Your task to perform on an android device: Clear all items from cart on costco. Add razer blackwidow to the cart on costco, then select checkout. Image 0: 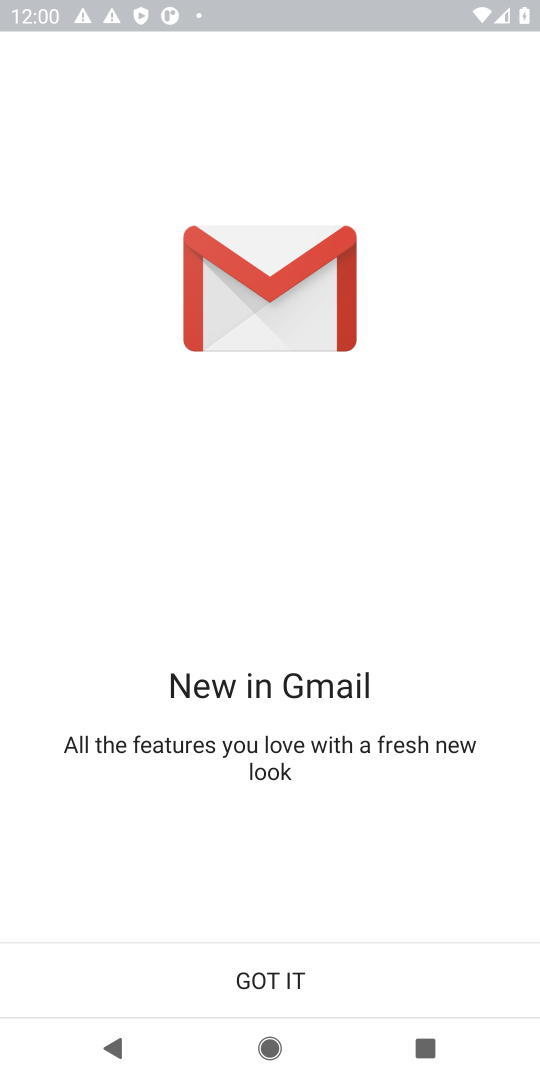
Step 0: press home button
Your task to perform on an android device: Clear all items from cart on costco. Add razer blackwidow to the cart on costco, then select checkout. Image 1: 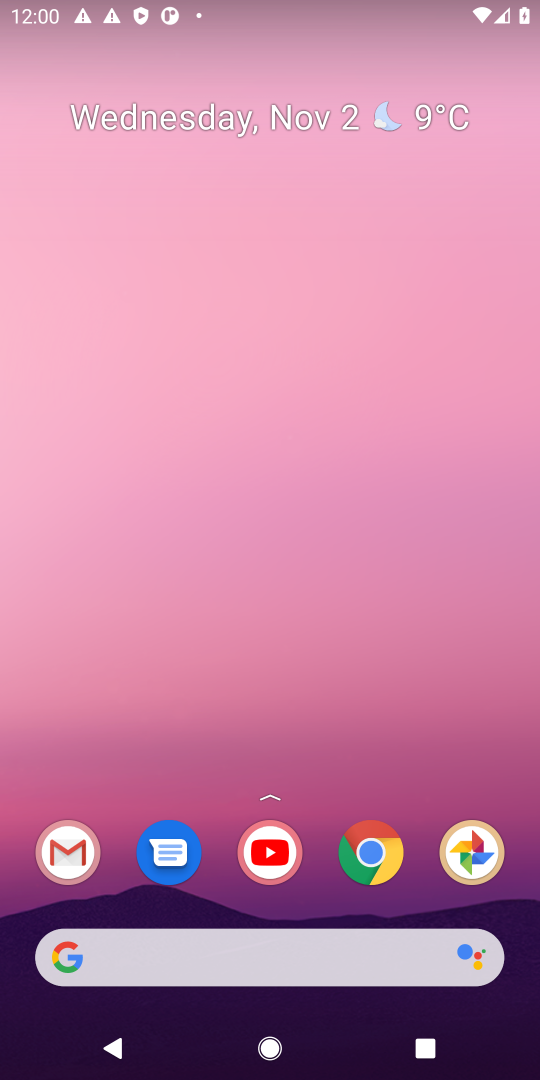
Step 1: drag from (268, 894) to (279, 169)
Your task to perform on an android device: Clear all items from cart on costco. Add razer blackwidow to the cart on costco, then select checkout. Image 2: 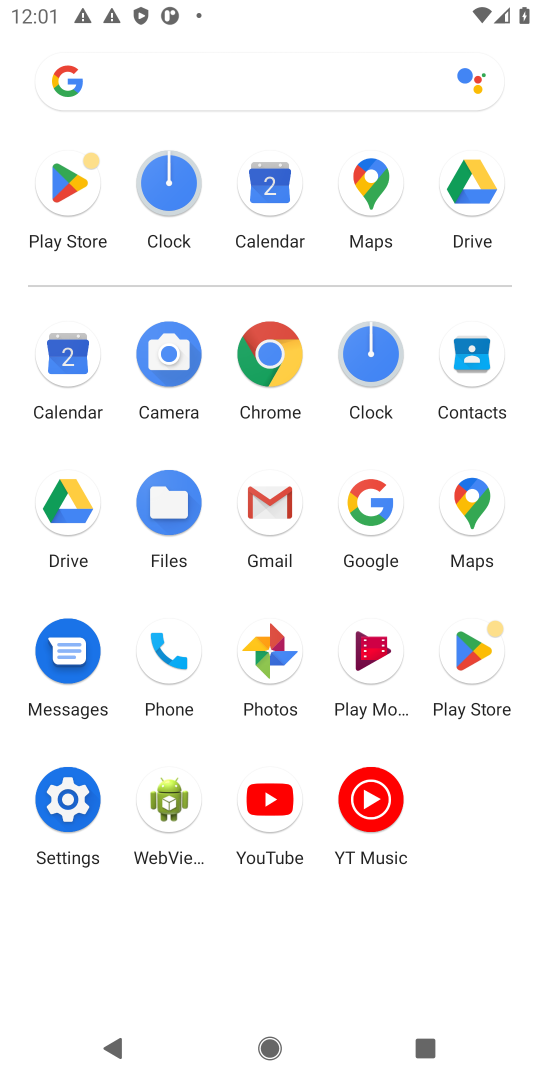
Step 2: click (364, 551)
Your task to perform on an android device: Clear all items from cart on costco. Add razer blackwidow to the cart on costco, then select checkout. Image 3: 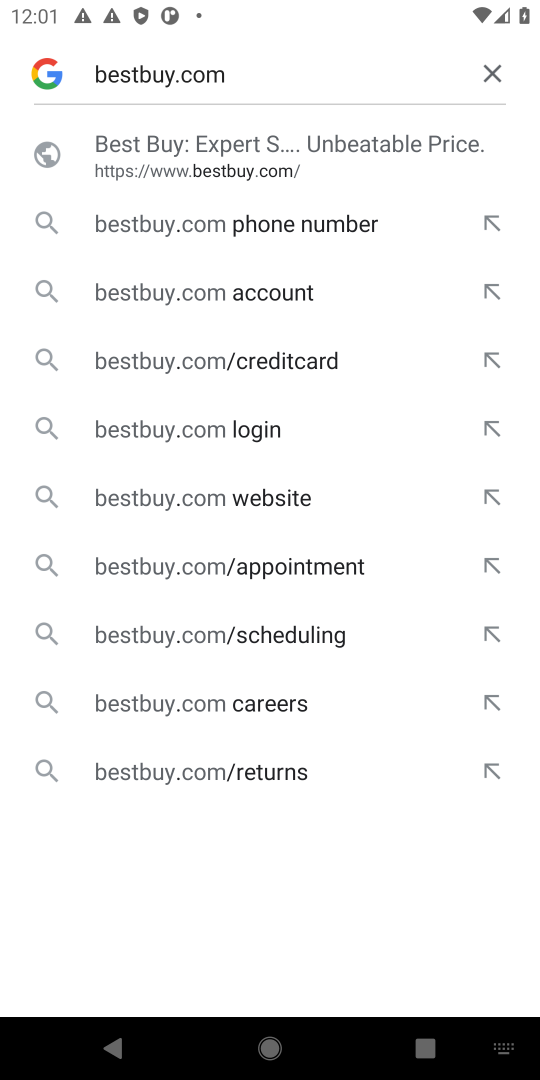
Step 3: click (295, 147)
Your task to perform on an android device: Clear all items from cart on costco. Add razer blackwidow to the cart on costco, then select checkout. Image 4: 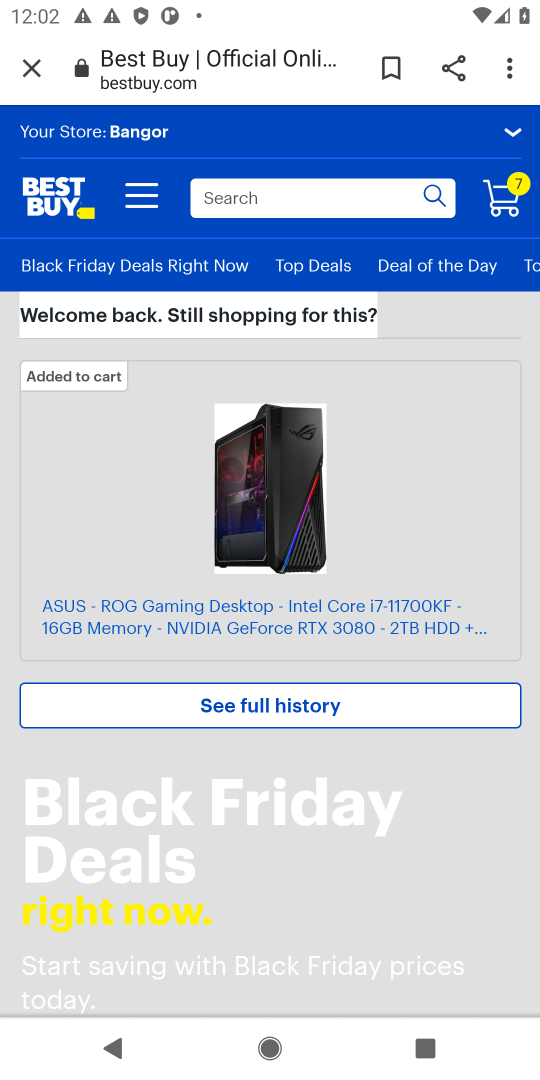
Step 4: click (35, 72)
Your task to perform on an android device: Clear all items from cart on costco. Add razer blackwidow to the cart on costco, then select checkout. Image 5: 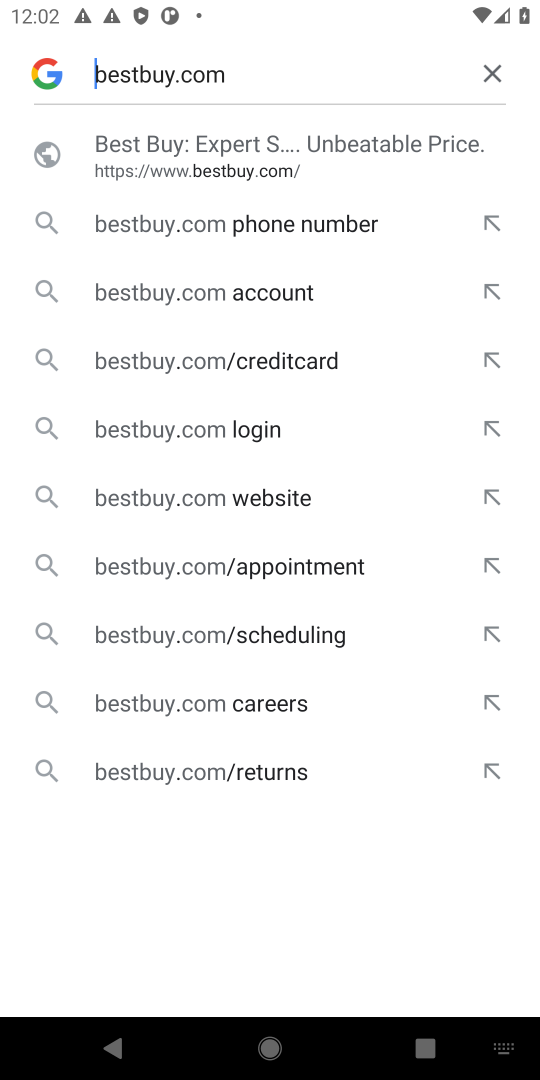
Step 5: click (496, 69)
Your task to perform on an android device: Clear all items from cart on costco. Add razer blackwidow to the cart on costco, then select checkout. Image 6: 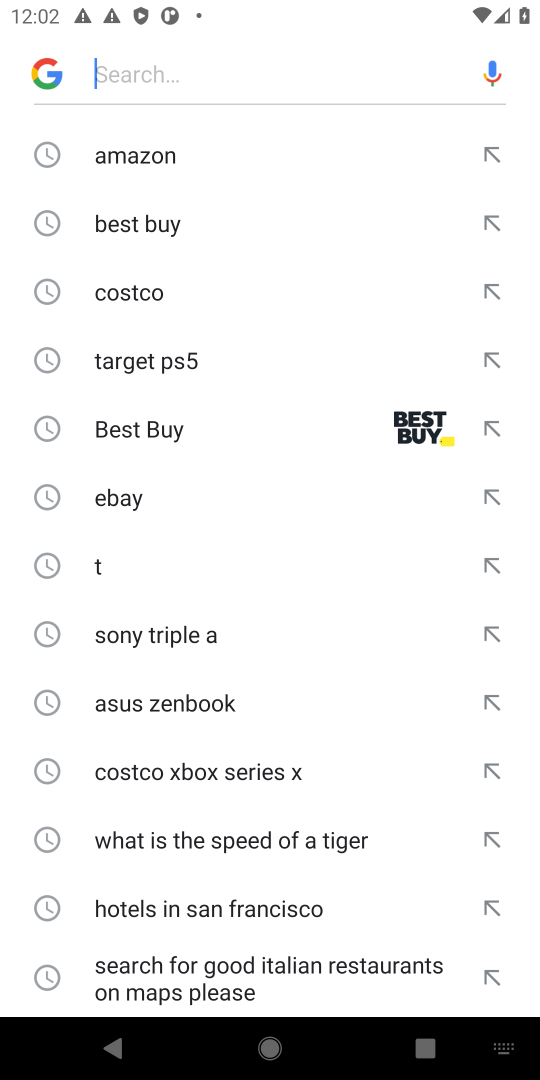
Step 6: type "costco"
Your task to perform on an android device: Clear all items from cart on costco. Add razer blackwidow to the cart on costco, then select checkout. Image 7: 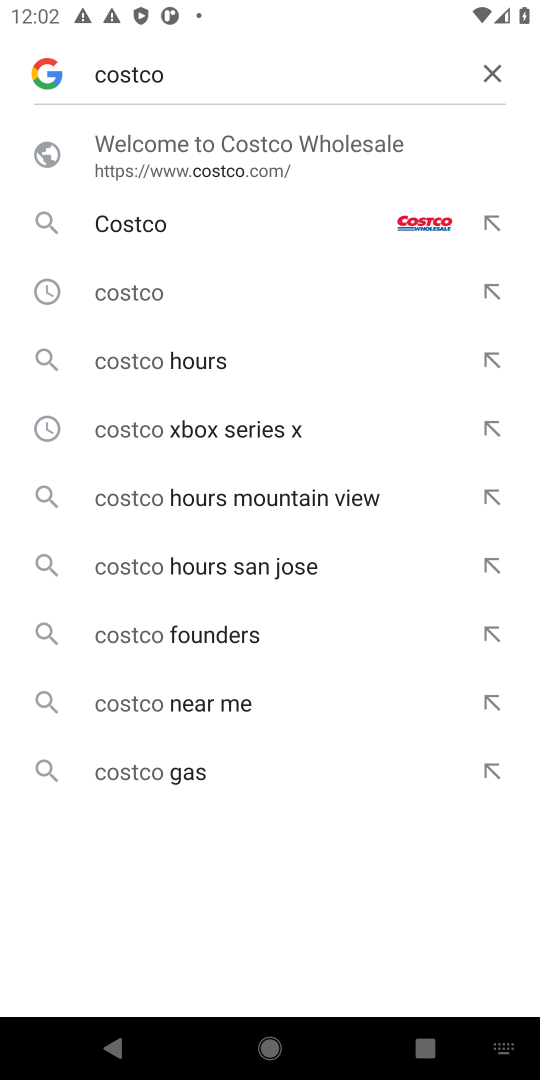
Step 7: click (280, 168)
Your task to perform on an android device: Clear all items from cart on costco. Add razer blackwidow to the cart on costco, then select checkout. Image 8: 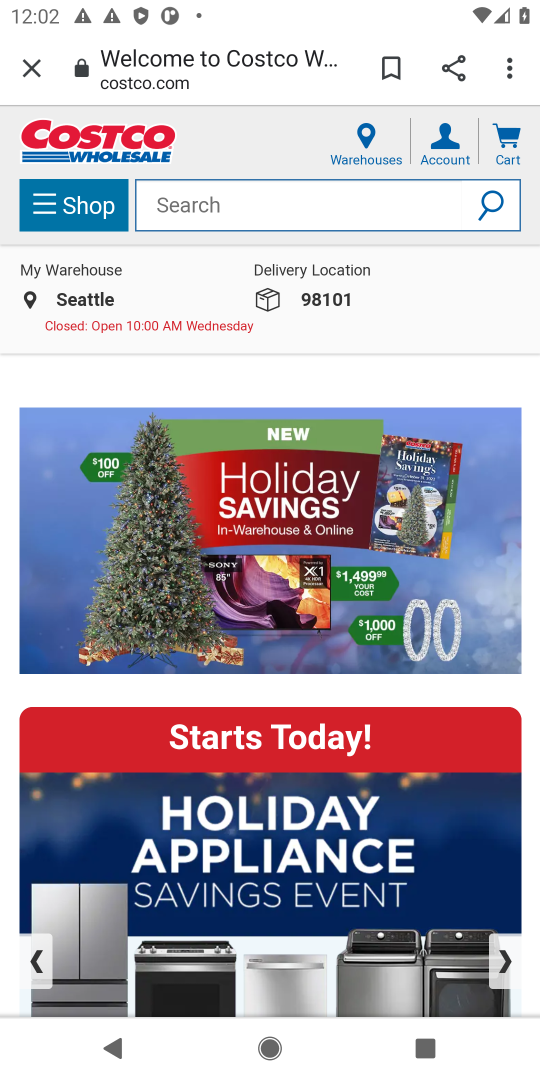
Step 8: click (510, 143)
Your task to perform on an android device: Clear all items from cart on costco. Add razer blackwidow to the cart on costco, then select checkout. Image 9: 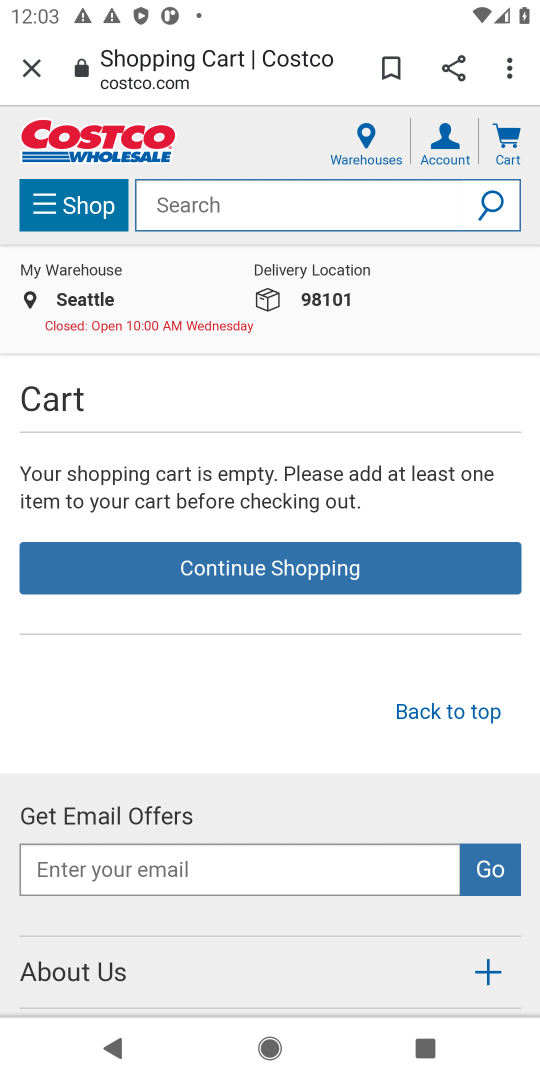
Step 9: click (410, 195)
Your task to perform on an android device: Clear all items from cart on costco. Add razer blackwidow to the cart on costco, then select checkout. Image 10: 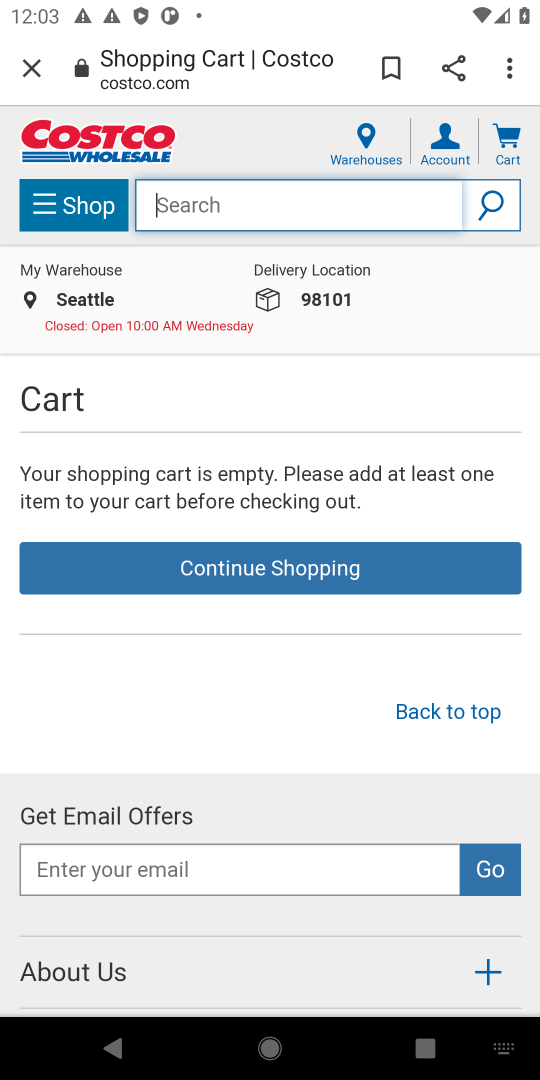
Step 10: type "razer blackwidow"
Your task to perform on an android device: Clear all items from cart on costco. Add razer blackwidow to the cart on costco, then select checkout. Image 11: 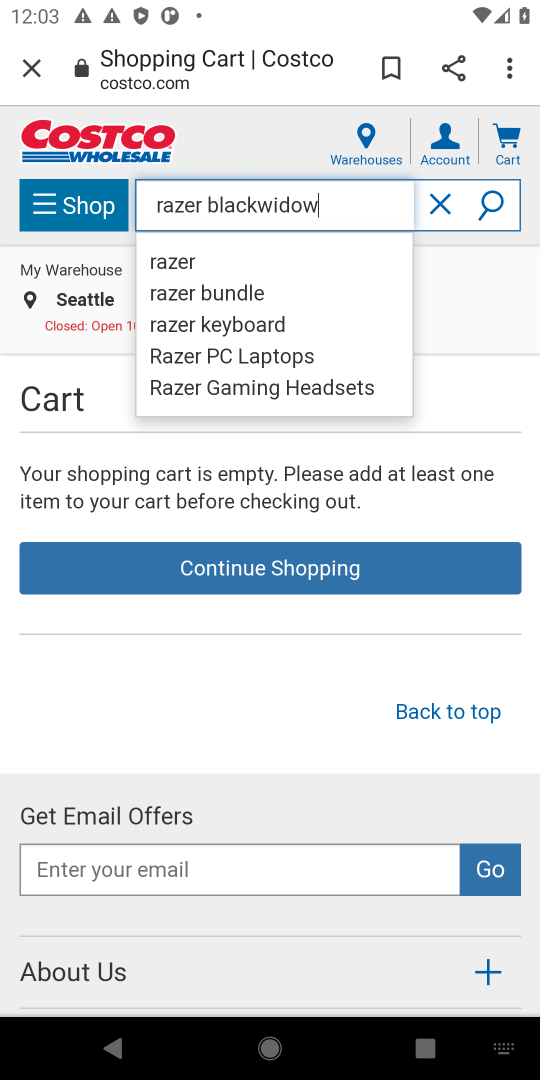
Step 11: click (488, 200)
Your task to perform on an android device: Clear all items from cart on costco. Add razer blackwidow to the cart on costco, then select checkout. Image 12: 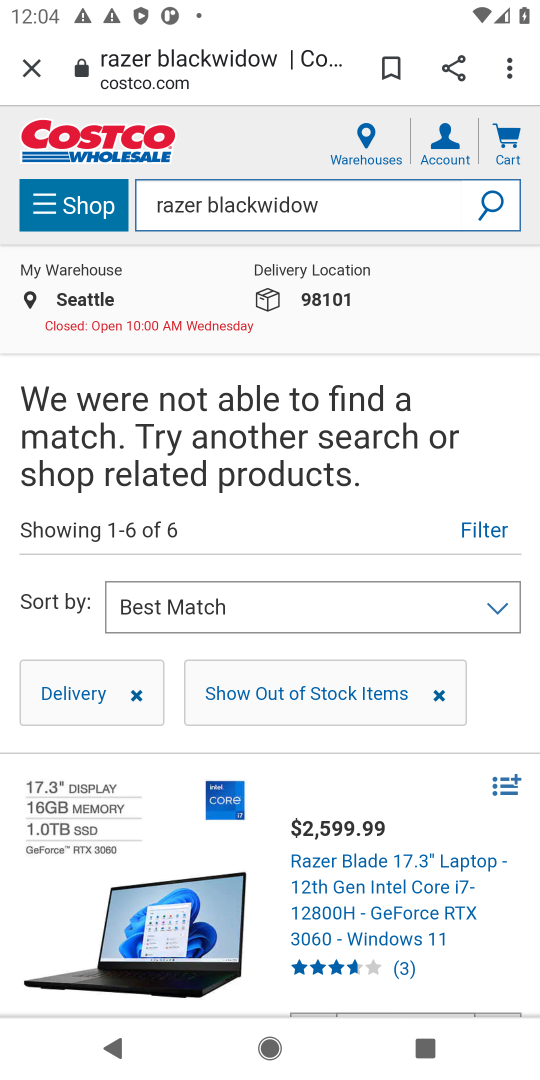
Step 12: task complete